Your task to perform on an android device: Turn on the flashlight Image 0: 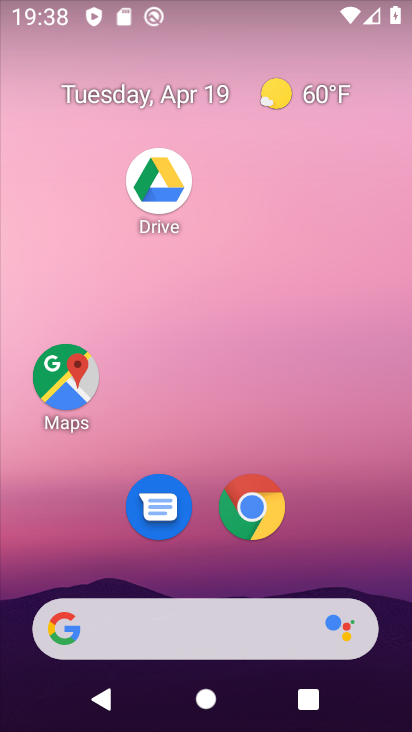
Step 0: drag from (380, 524) to (391, 96)
Your task to perform on an android device: Turn on the flashlight Image 1: 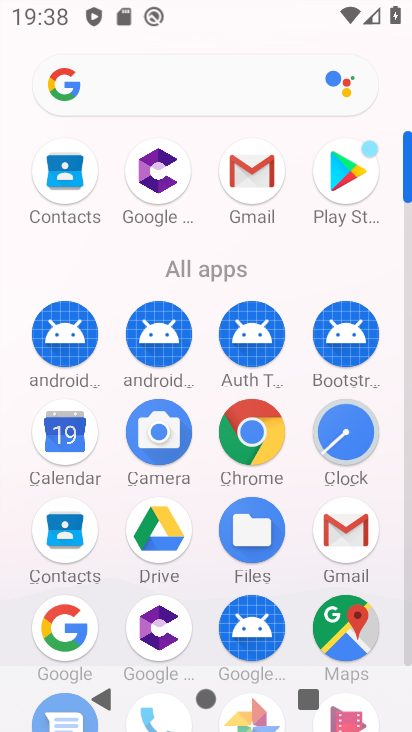
Step 1: drag from (200, 499) to (226, 254)
Your task to perform on an android device: Turn on the flashlight Image 2: 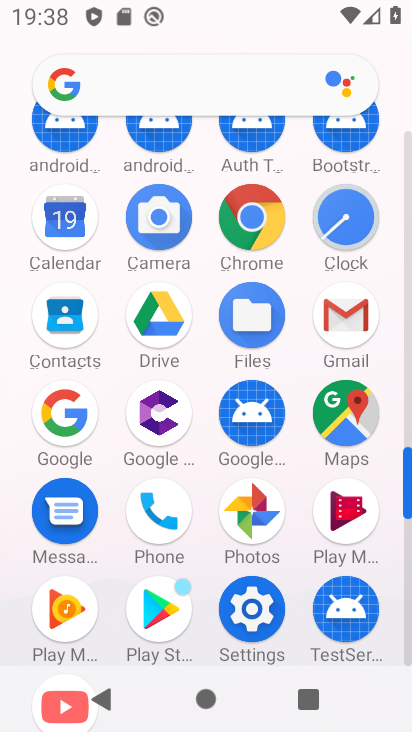
Step 2: click (248, 584)
Your task to perform on an android device: Turn on the flashlight Image 3: 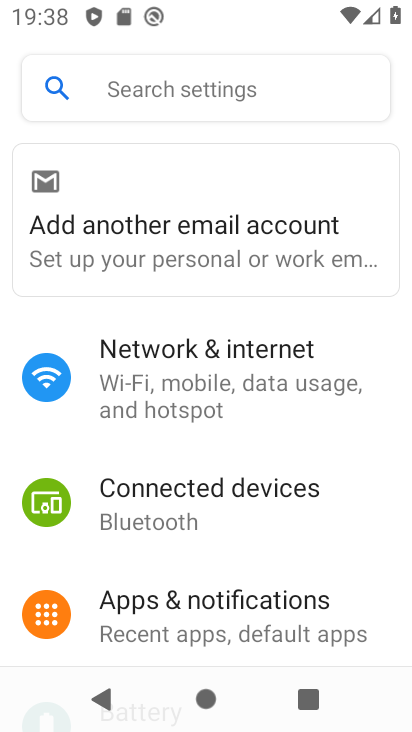
Step 3: click (255, 75)
Your task to perform on an android device: Turn on the flashlight Image 4: 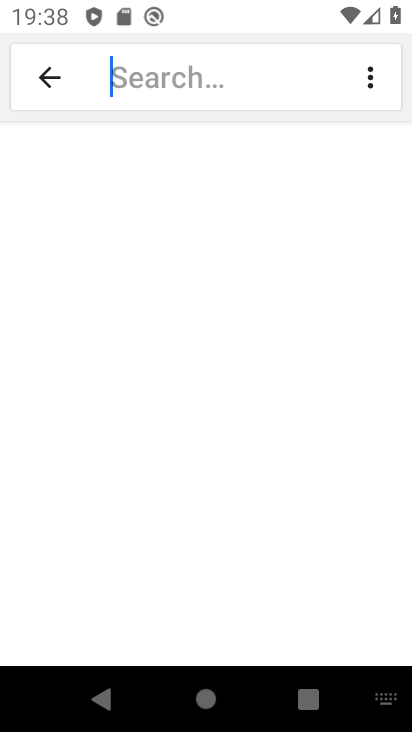
Step 4: type "flashlight"
Your task to perform on an android device: Turn on the flashlight Image 5: 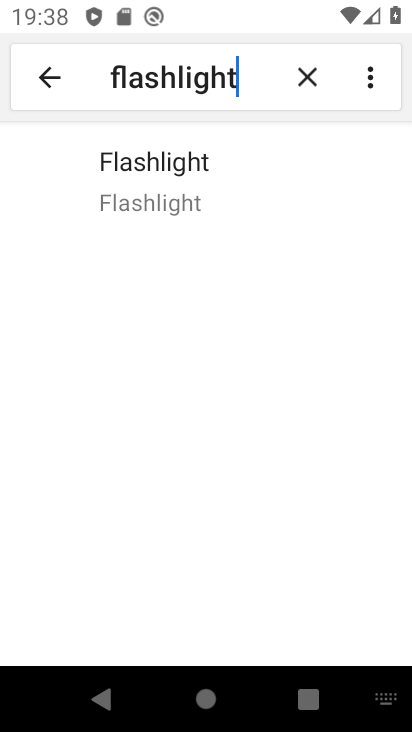
Step 5: click (179, 155)
Your task to perform on an android device: Turn on the flashlight Image 6: 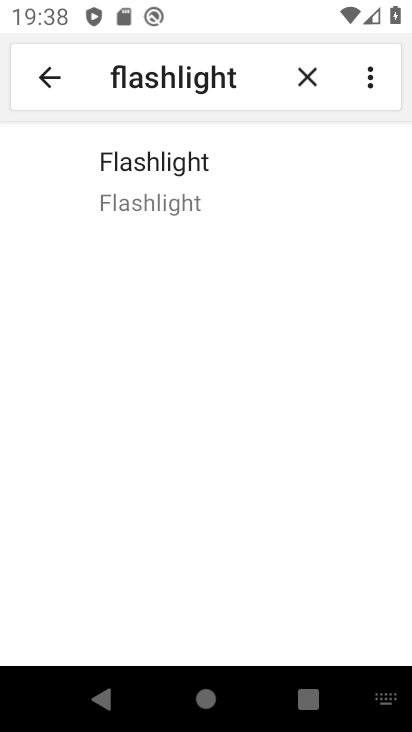
Step 6: click (179, 155)
Your task to perform on an android device: Turn on the flashlight Image 7: 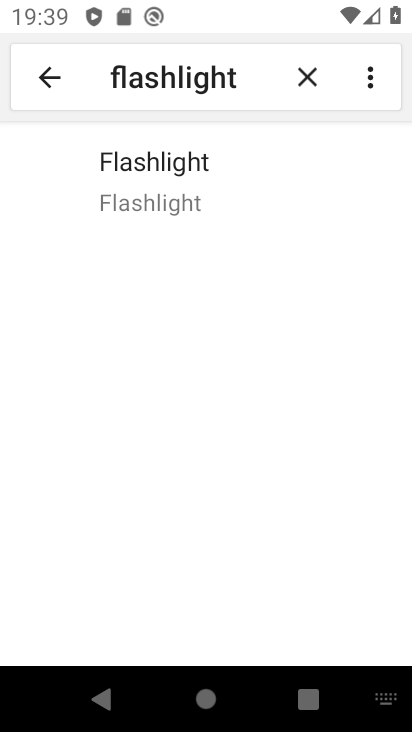
Step 7: task complete